Your task to perform on an android device: Go to battery settings Image 0: 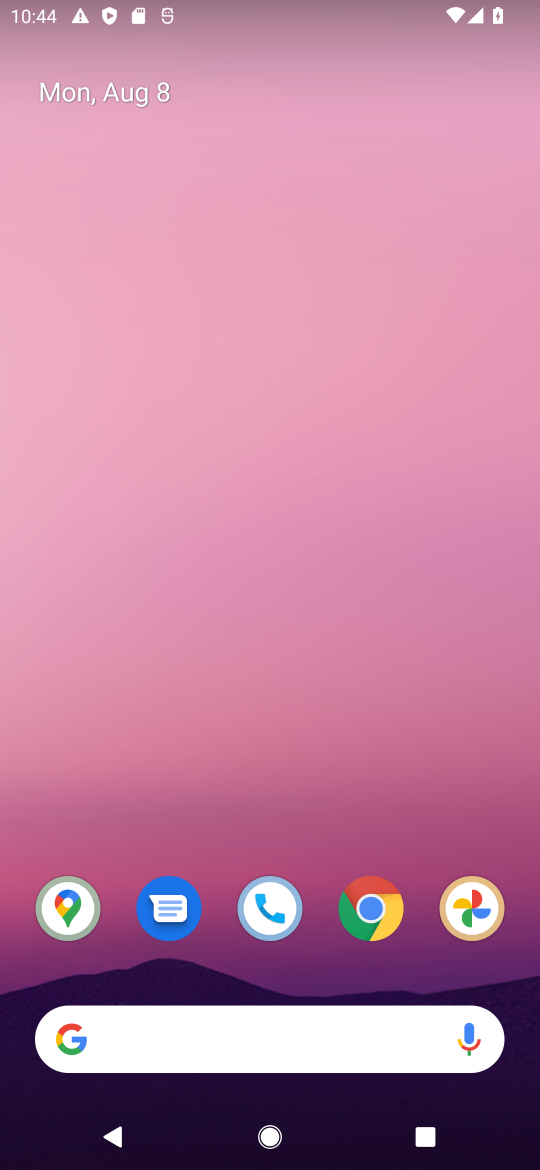
Step 0: press home button
Your task to perform on an android device: Go to battery settings Image 1: 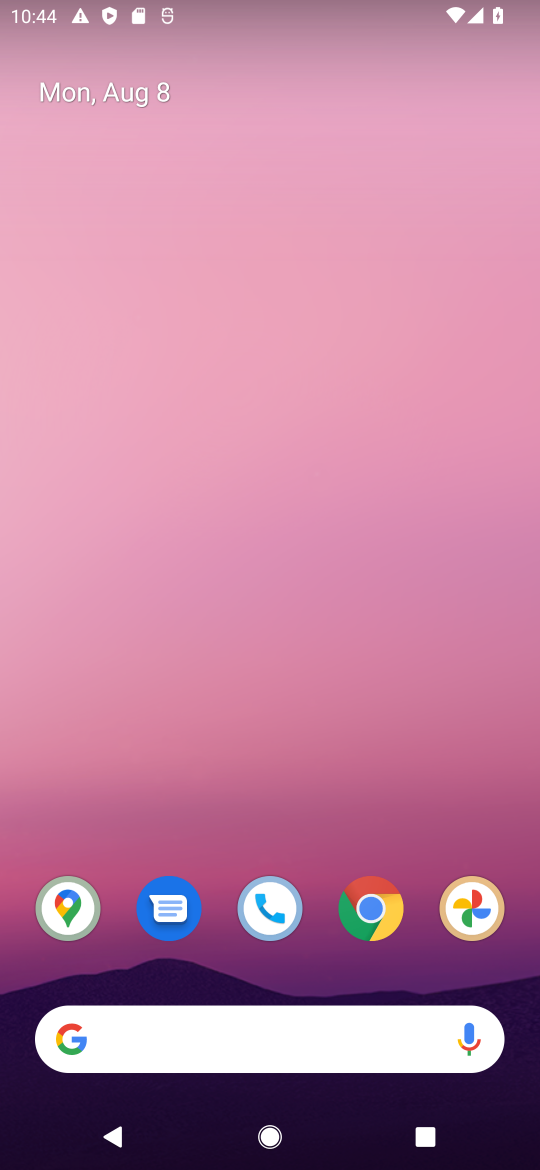
Step 1: drag from (327, 858) to (352, 44)
Your task to perform on an android device: Go to battery settings Image 2: 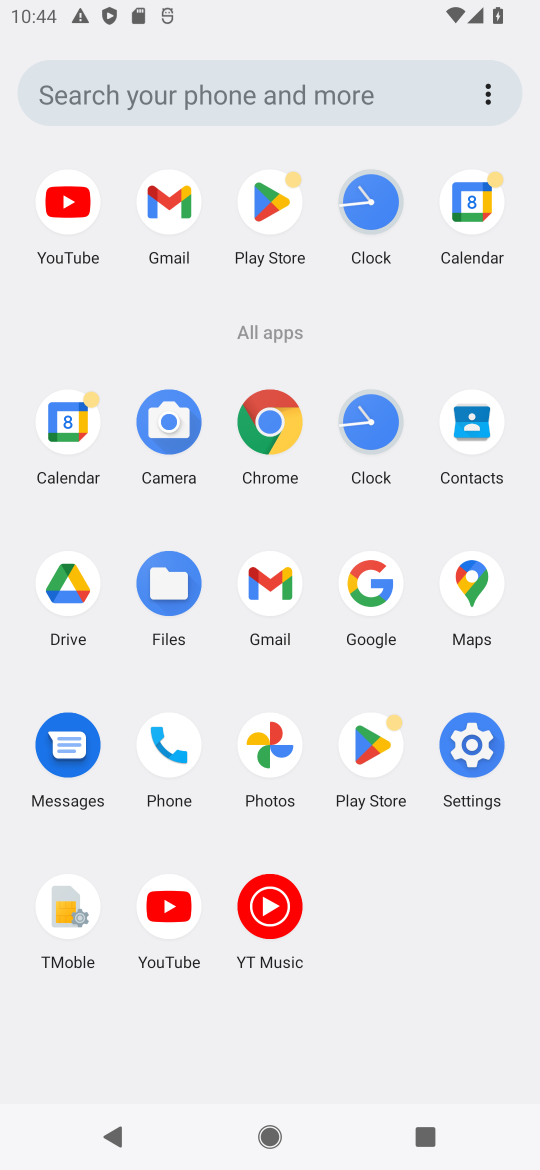
Step 2: click (470, 738)
Your task to perform on an android device: Go to battery settings Image 3: 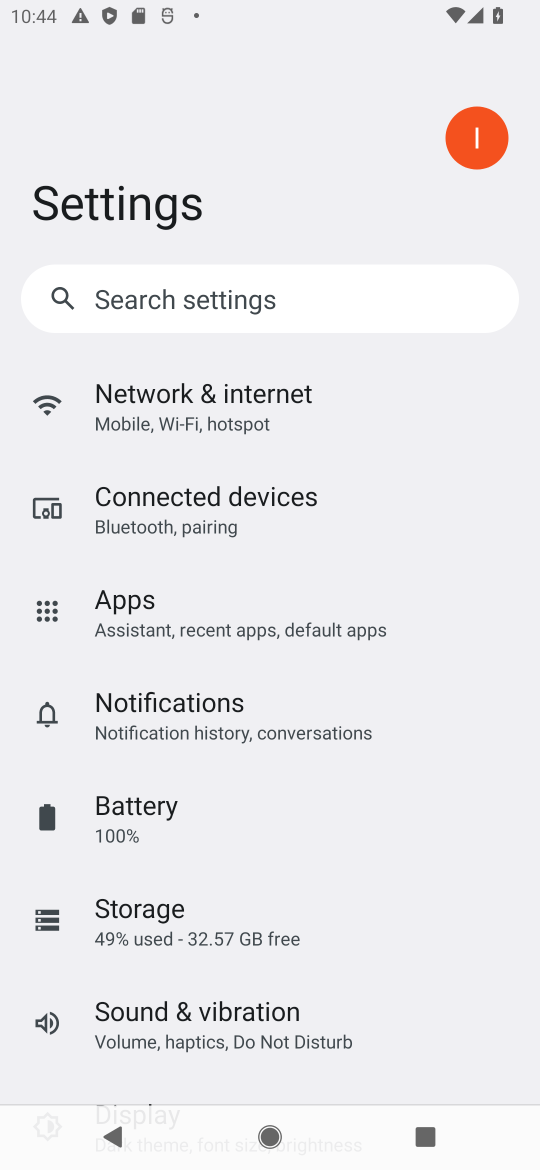
Step 3: click (178, 810)
Your task to perform on an android device: Go to battery settings Image 4: 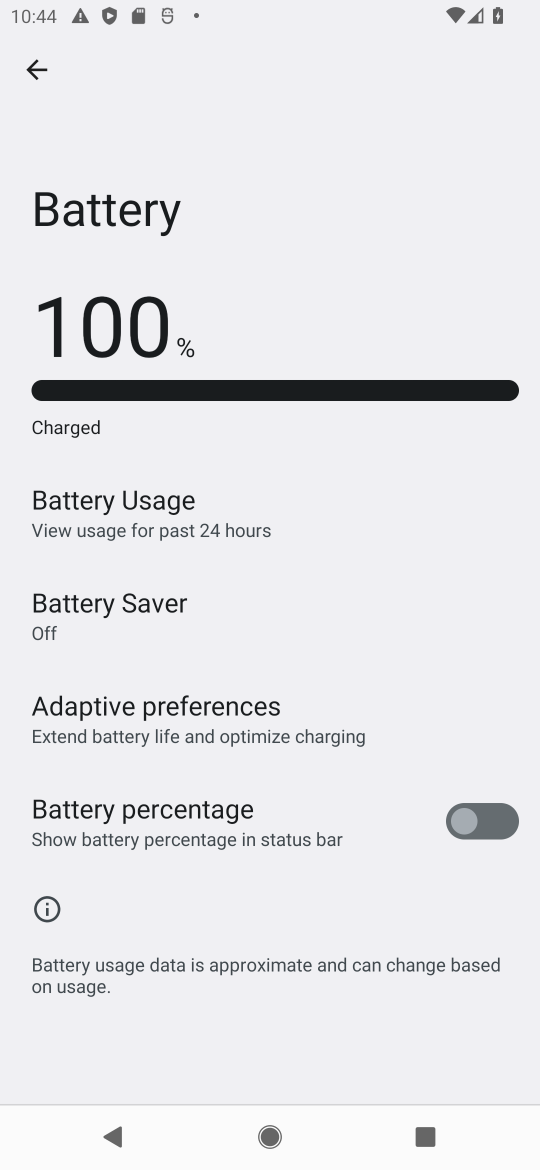
Step 4: task complete